Your task to perform on an android device: toggle show notifications on the lock screen Image 0: 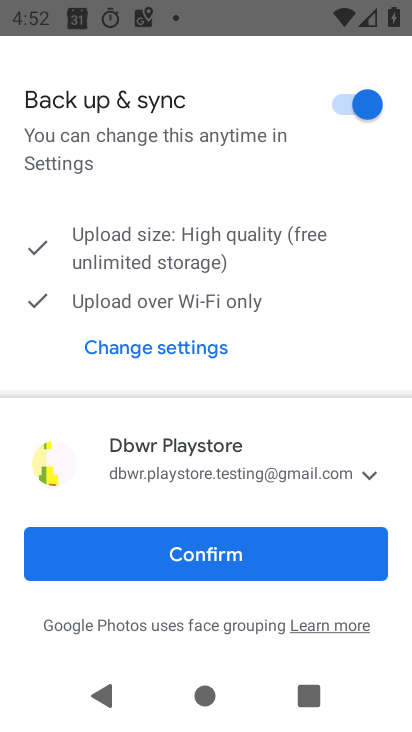
Step 0: press back button
Your task to perform on an android device: toggle show notifications on the lock screen Image 1: 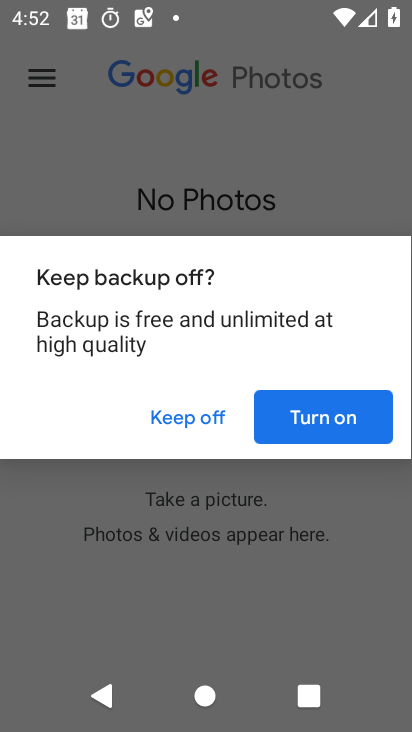
Step 1: press home button
Your task to perform on an android device: toggle show notifications on the lock screen Image 2: 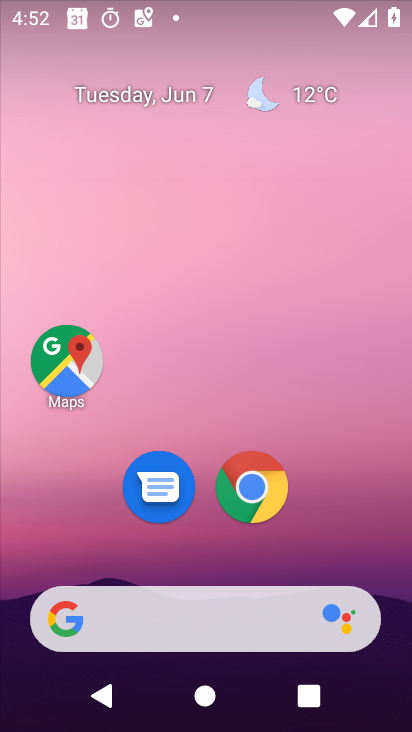
Step 2: drag from (191, 569) to (177, 24)
Your task to perform on an android device: toggle show notifications on the lock screen Image 3: 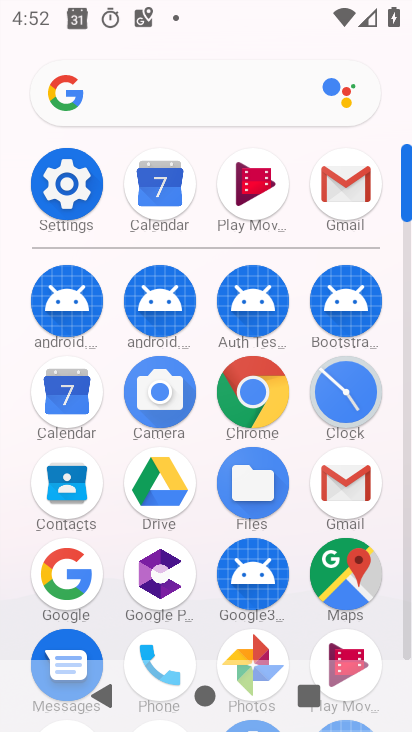
Step 3: click (86, 188)
Your task to perform on an android device: toggle show notifications on the lock screen Image 4: 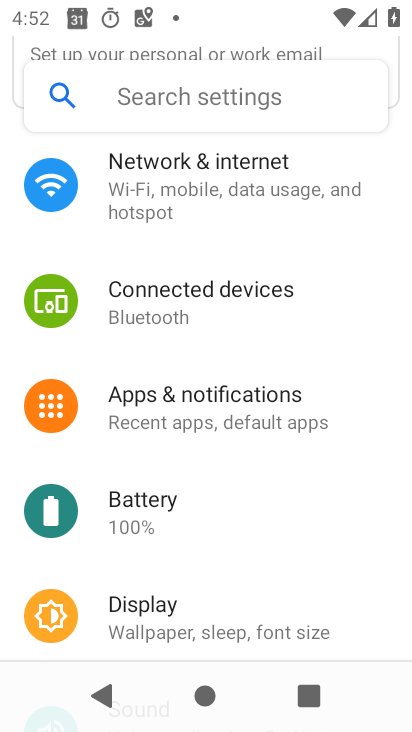
Step 4: click (245, 403)
Your task to perform on an android device: toggle show notifications on the lock screen Image 5: 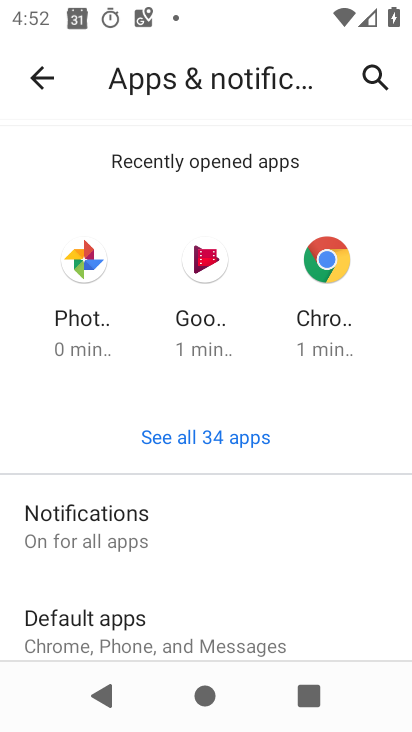
Step 5: click (141, 537)
Your task to perform on an android device: toggle show notifications on the lock screen Image 6: 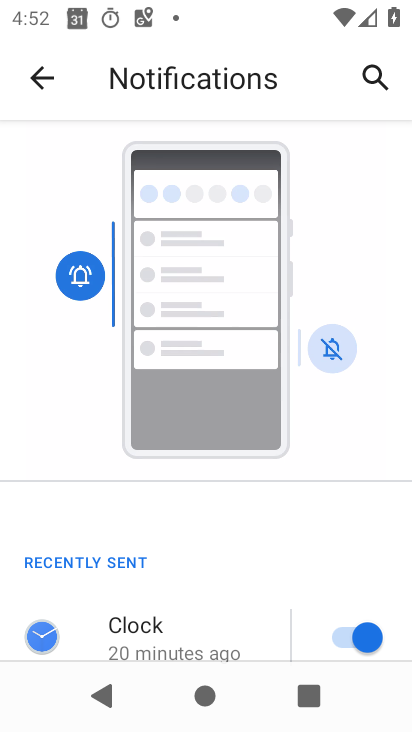
Step 6: drag from (119, 628) to (166, 90)
Your task to perform on an android device: toggle show notifications on the lock screen Image 7: 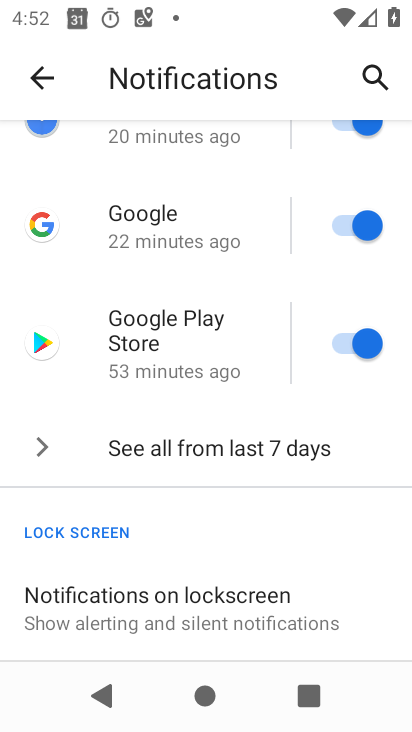
Step 7: click (192, 592)
Your task to perform on an android device: toggle show notifications on the lock screen Image 8: 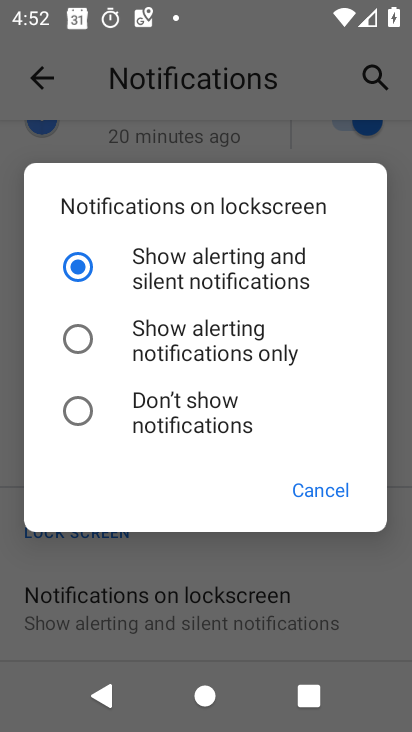
Step 8: click (126, 265)
Your task to perform on an android device: toggle show notifications on the lock screen Image 9: 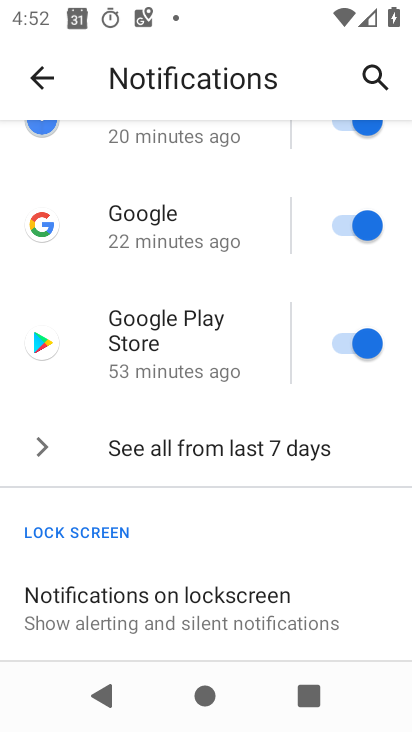
Step 9: task complete